Your task to perform on an android device: turn on location history Image 0: 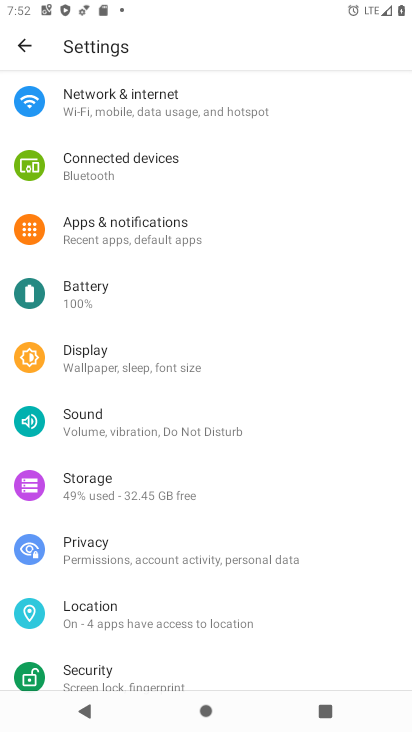
Step 0: click (100, 625)
Your task to perform on an android device: turn on location history Image 1: 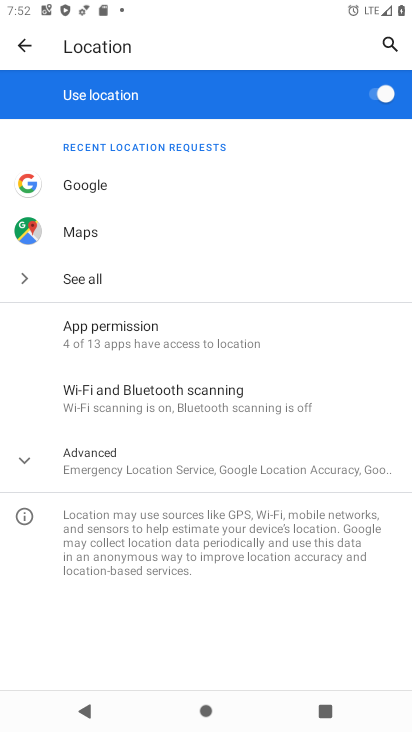
Step 1: click (136, 461)
Your task to perform on an android device: turn on location history Image 2: 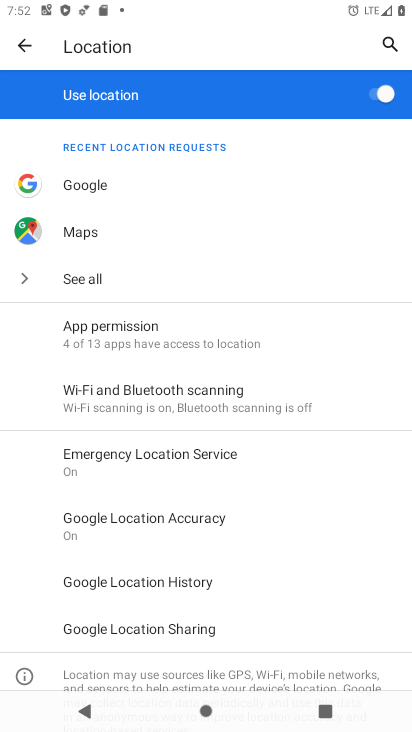
Step 2: click (156, 585)
Your task to perform on an android device: turn on location history Image 3: 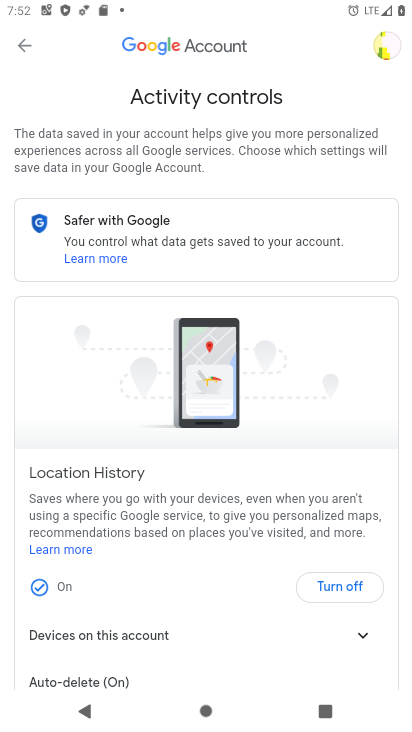
Step 3: task complete